Your task to perform on an android device: toggle notification dots Image 0: 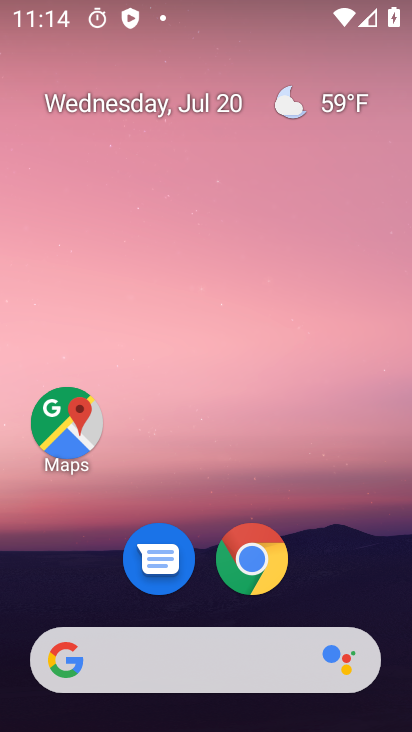
Step 0: drag from (192, 583) to (287, 38)
Your task to perform on an android device: toggle notification dots Image 1: 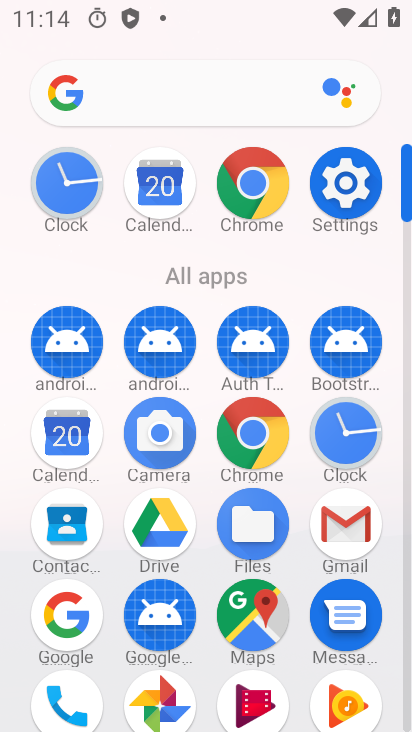
Step 1: click (369, 187)
Your task to perform on an android device: toggle notification dots Image 2: 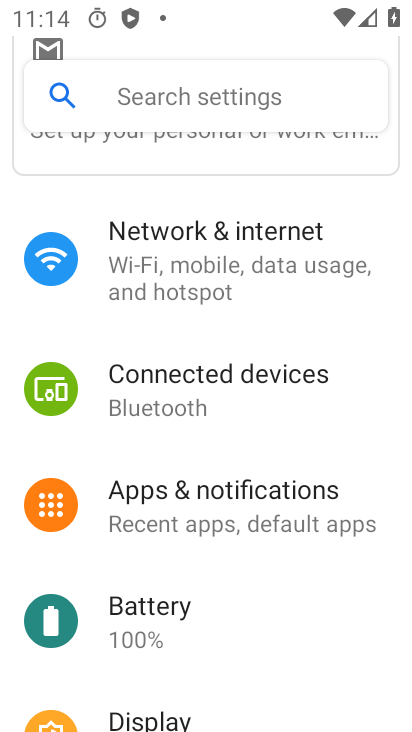
Step 2: click (248, 491)
Your task to perform on an android device: toggle notification dots Image 3: 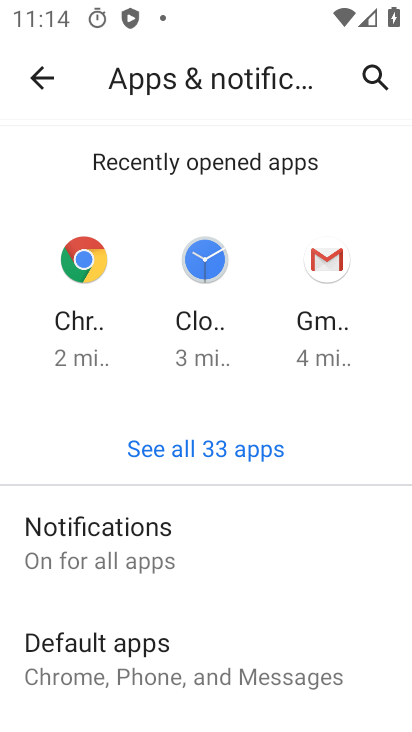
Step 3: click (206, 522)
Your task to perform on an android device: toggle notification dots Image 4: 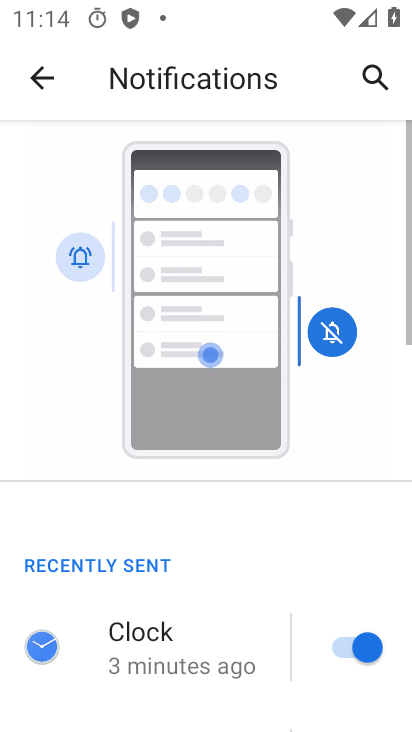
Step 4: drag from (188, 650) to (235, 5)
Your task to perform on an android device: toggle notification dots Image 5: 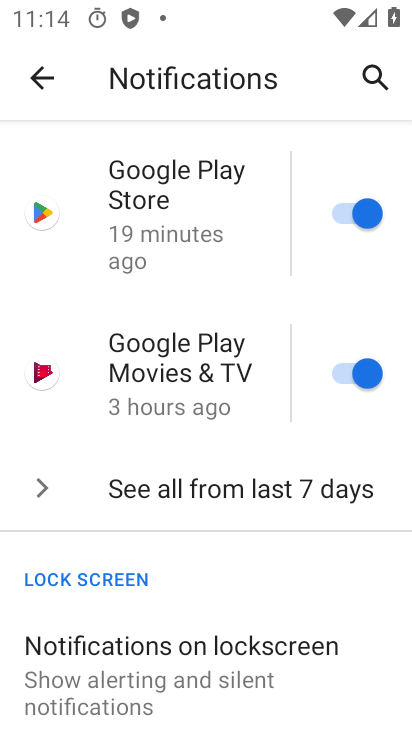
Step 5: drag from (176, 689) to (262, 276)
Your task to perform on an android device: toggle notification dots Image 6: 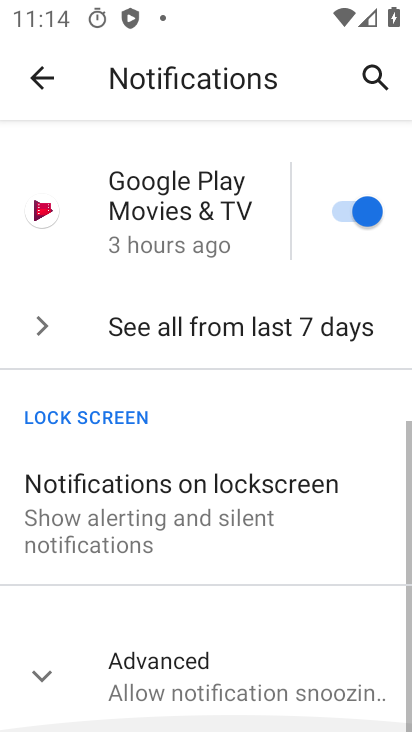
Step 6: click (174, 688)
Your task to perform on an android device: toggle notification dots Image 7: 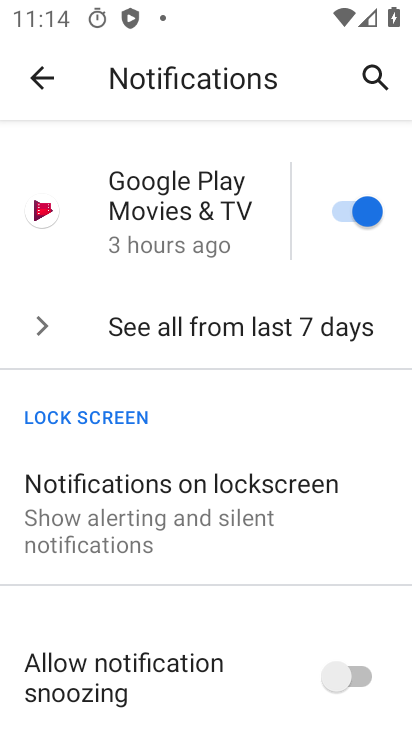
Step 7: drag from (190, 642) to (243, 276)
Your task to perform on an android device: toggle notification dots Image 8: 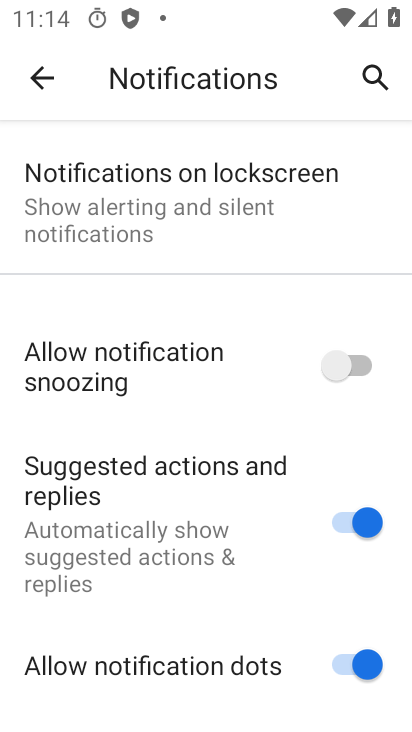
Step 8: click (372, 649)
Your task to perform on an android device: toggle notification dots Image 9: 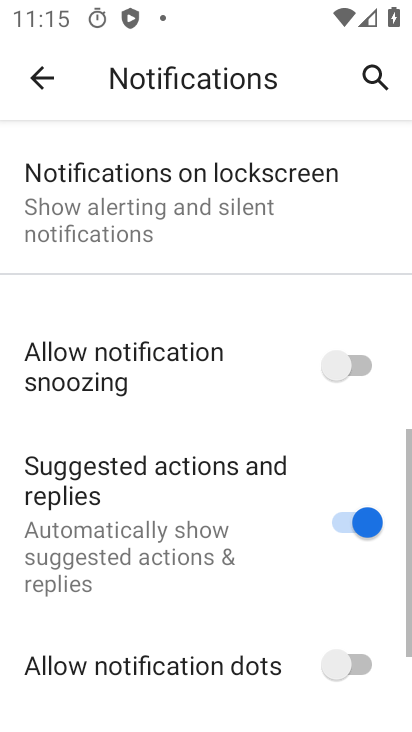
Step 9: task complete